Your task to perform on an android device: open a new tab in the chrome app Image 0: 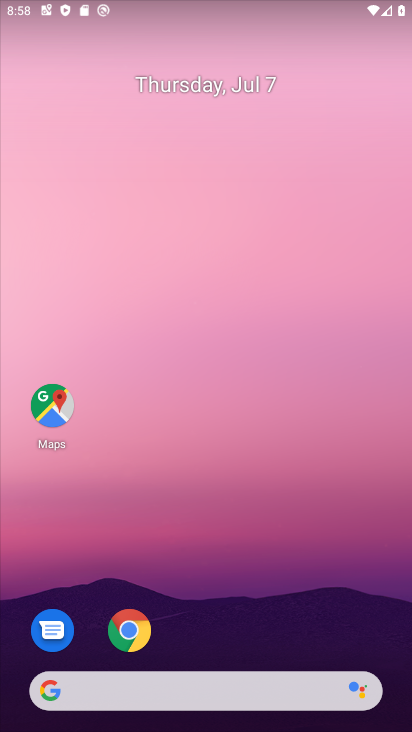
Step 0: click (134, 626)
Your task to perform on an android device: open a new tab in the chrome app Image 1: 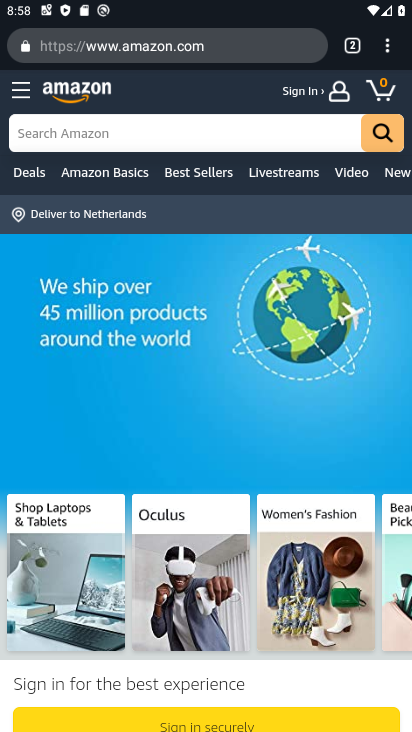
Step 1: click (355, 50)
Your task to perform on an android device: open a new tab in the chrome app Image 2: 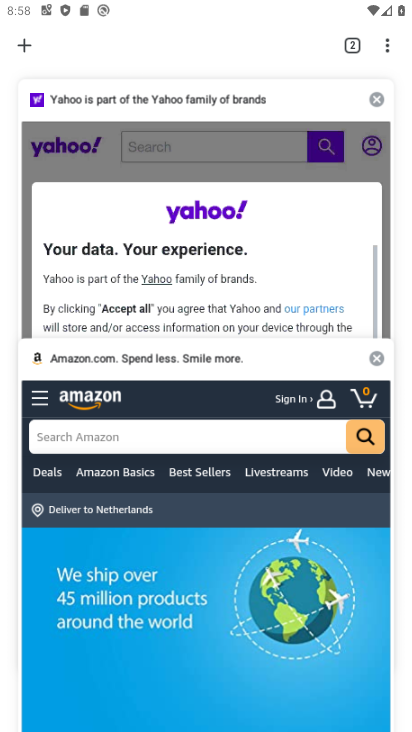
Step 2: click (24, 46)
Your task to perform on an android device: open a new tab in the chrome app Image 3: 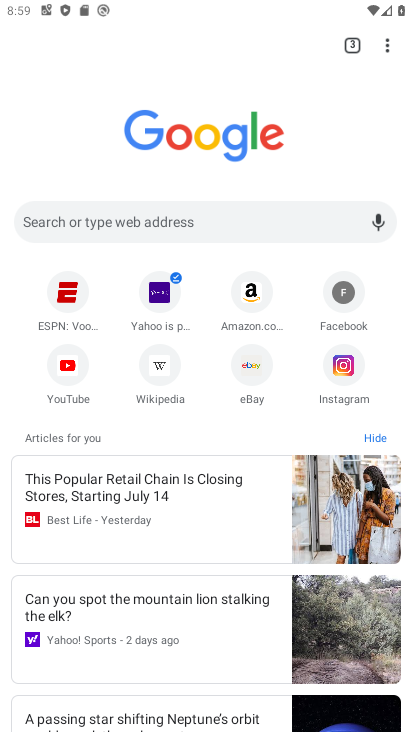
Step 3: task complete